Your task to perform on an android device: Open Chrome and go to the settings page Image 0: 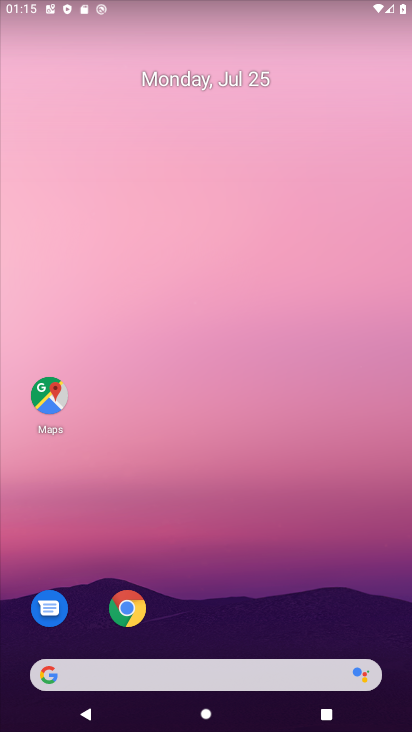
Step 0: click (153, 603)
Your task to perform on an android device: Open Chrome and go to the settings page Image 1: 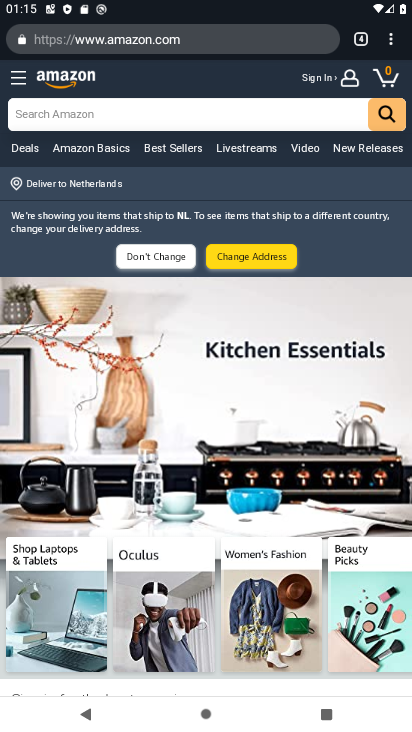
Step 1: task complete